Your task to perform on an android device: turn on priority inbox in the gmail app Image 0: 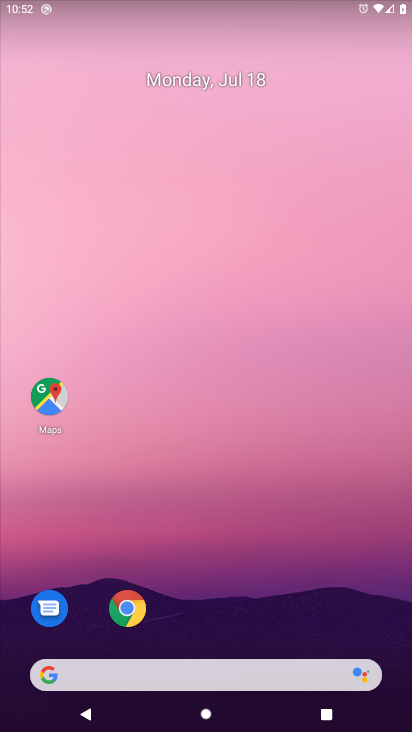
Step 0: click (93, 670)
Your task to perform on an android device: turn on priority inbox in the gmail app Image 1: 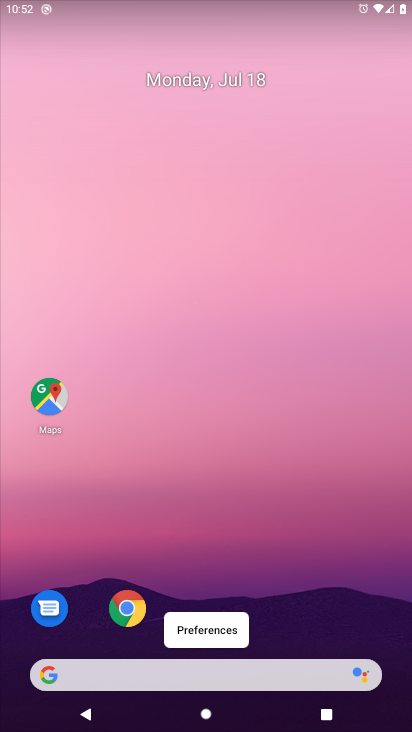
Step 1: drag from (27, 706) to (116, 202)
Your task to perform on an android device: turn on priority inbox in the gmail app Image 2: 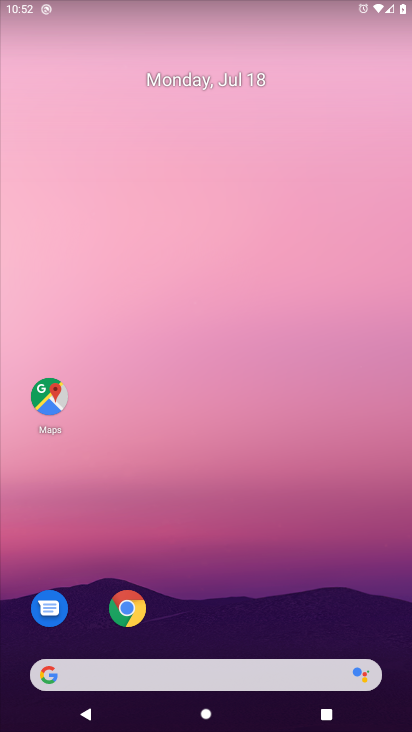
Step 2: click (161, 198)
Your task to perform on an android device: turn on priority inbox in the gmail app Image 3: 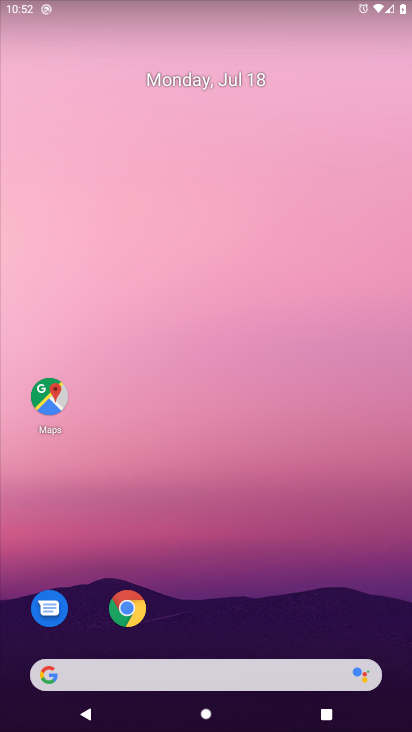
Step 3: drag from (44, 540) to (236, 2)
Your task to perform on an android device: turn on priority inbox in the gmail app Image 4: 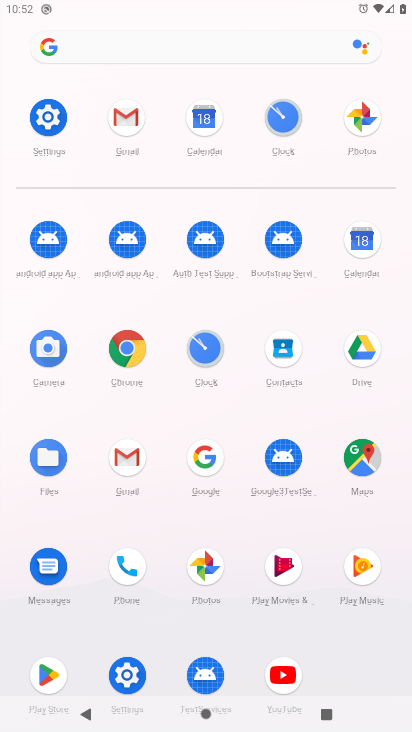
Step 4: click (137, 453)
Your task to perform on an android device: turn on priority inbox in the gmail app Image 5: 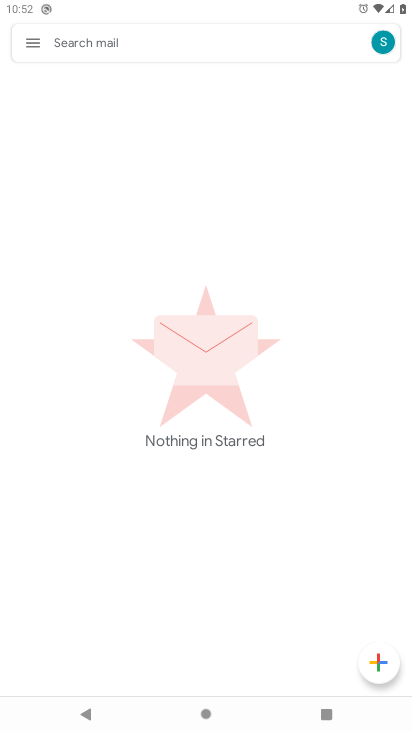
Step 5: click (26, 41)
Your task to perform on an android device: turn on priority inbox in the gmail app Image 6: 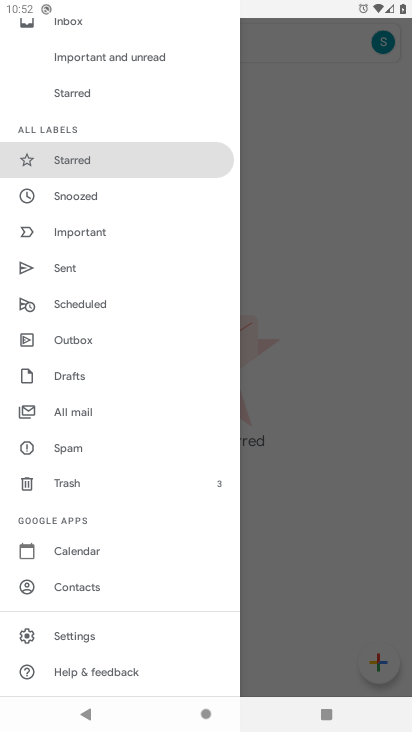
Step 6: click (98, 631)
Your task to perform on an android device: turn on priority inbox in the gmail app Image 7: 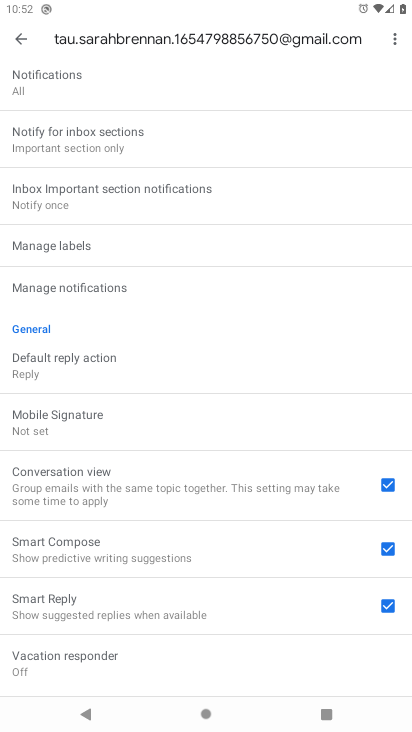
Step 7: click (13, 38)
Your task to perform on an android device: turn on priority inbox in the gmail app Image 8: 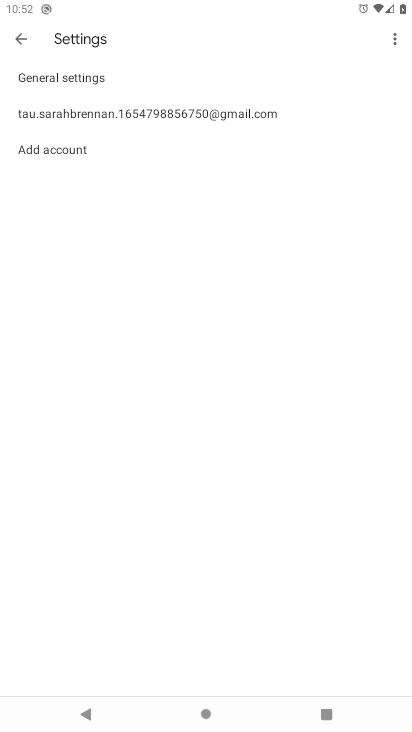
Step 8: click (38, 116)
Your task to perform on an android device: turn on priority inbox in the gmail app Image 9: 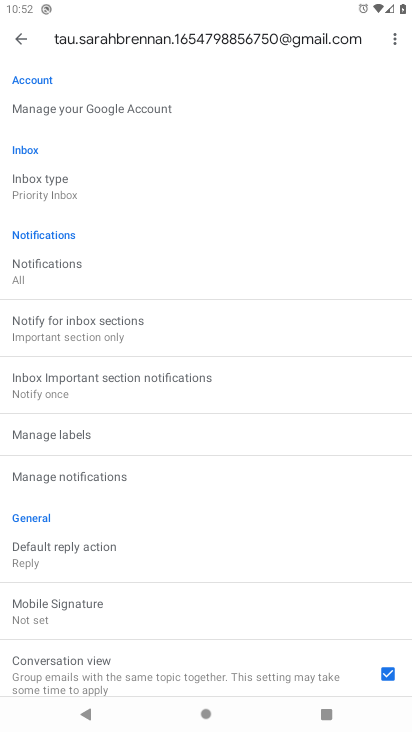
Step 9: task complete